Your task to perform on an android device: Open battery settings Image 0: 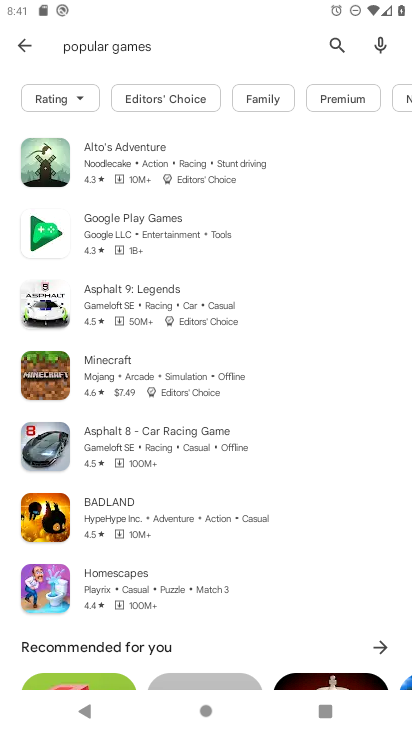
Step 0: press home button
Your task to perform on an android device: Open battery settings Image 1: 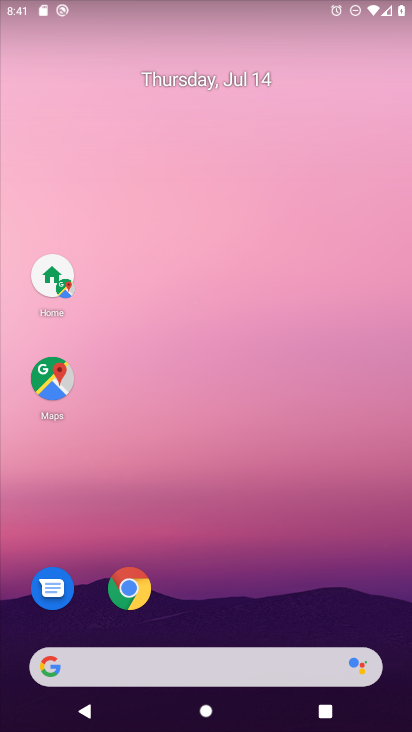
Step 1: drag from (82, 644) to (234, 86)
Your task to perform on an android device: Open battery settings Image 2: 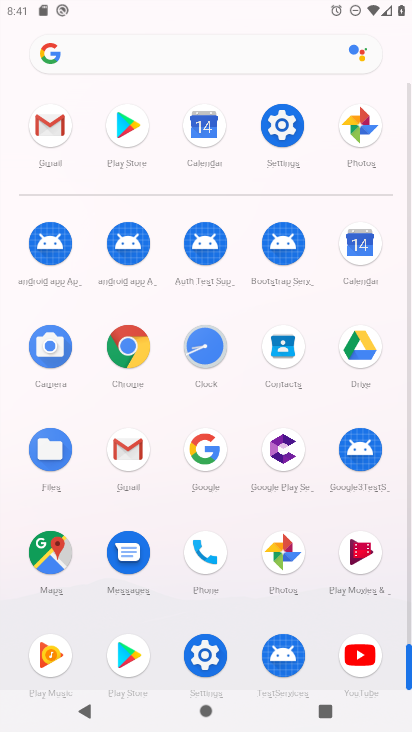
Step 2: click (199, 643)
Your task to perform on an android device: Open battery settings Image 3: 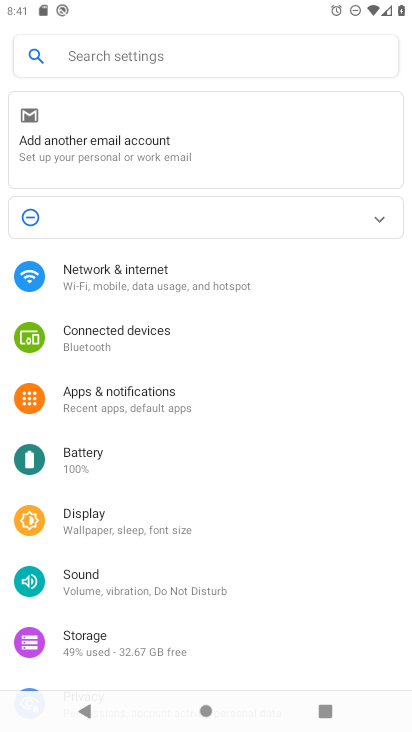
Step 3: click (90, 454)
Your task to perform on an android device: Open battery settings Image 4: 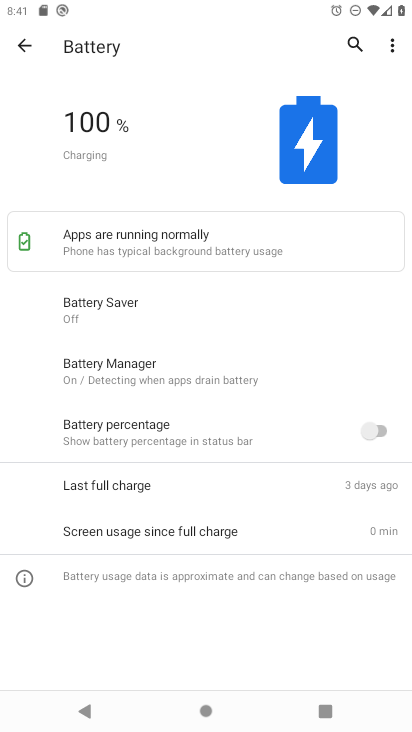
Step 4: task complete